Your task to perform on an android device: Open the web browser Image 0: 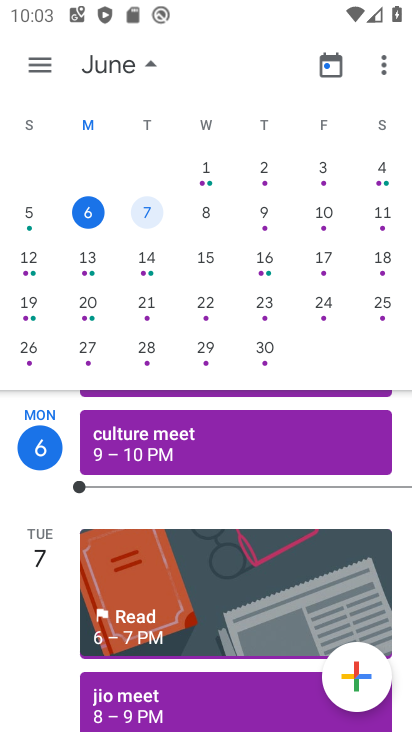
Step 0: press home button
Your task to perform on an android device: Open the web browser Image 1: 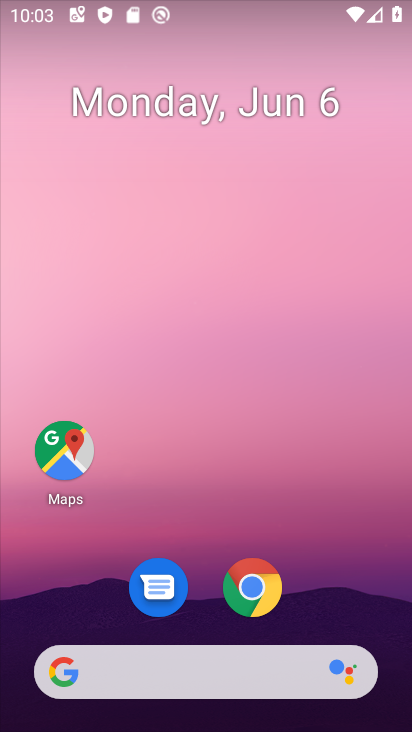
Step 1: click (245, 608)
Your task to perform on an android device: Open the web browser Image 2: 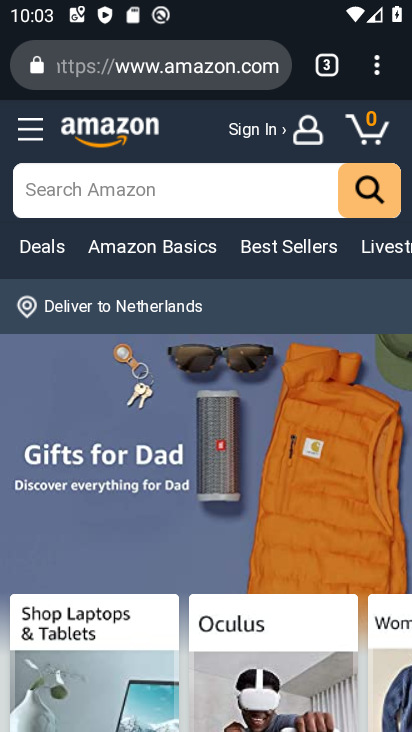
Step 2: task complete